Your task to perform on an android device: find snoozed emails in the gmail app Image 0: 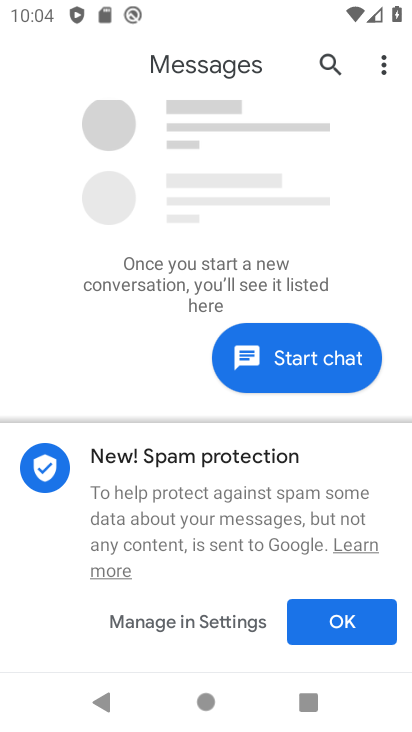
Step 0: click (71, 393)
Your task to perform on an android device: find snoozed emails in the gmail app Image 1: 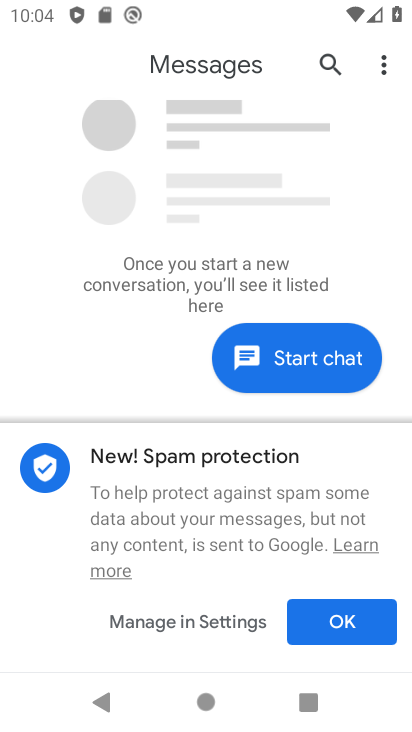
Step 1: press back button
Your task to perform on an android device: find snoozed emails in the gmail app Image 2: 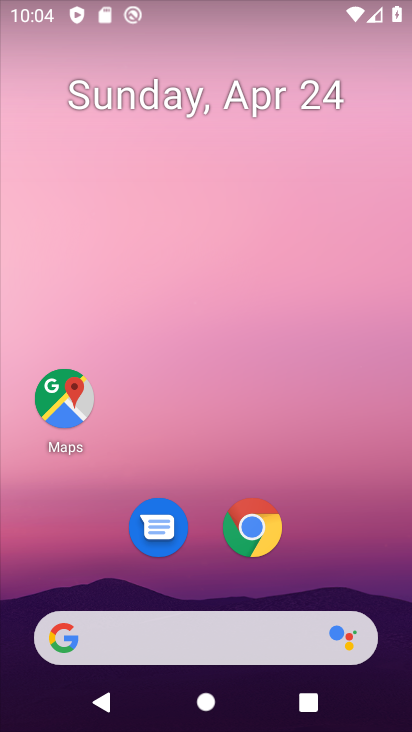
Step 2: drag from (109, 574) to (221, 83)
Your task to perform on an android device: find snoozed emails in the gmail app Image 3: 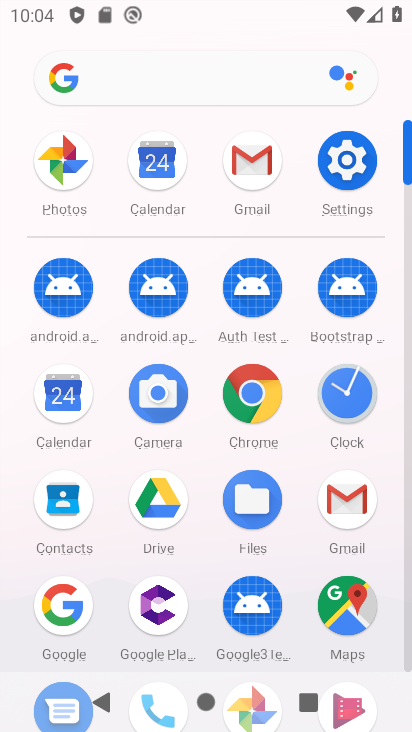
Step 3: click (254, 163)
Your task to perform on an android device: find snoozed emails in the gmail app Image 4: 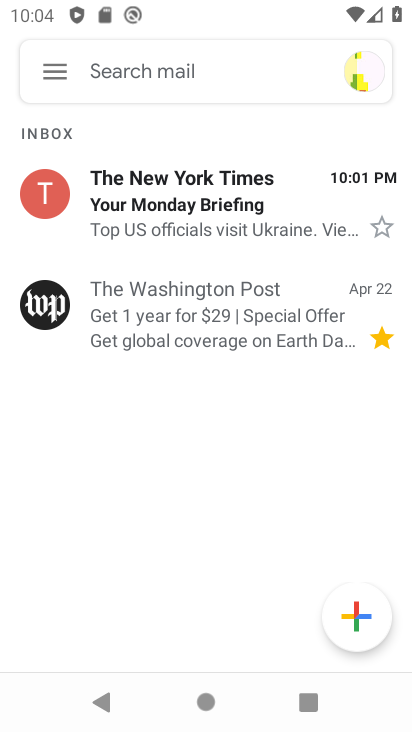
Step 4: click (57, 66)
Your task to perform on an android device: find snoozed emails in the gmail app Image 5: 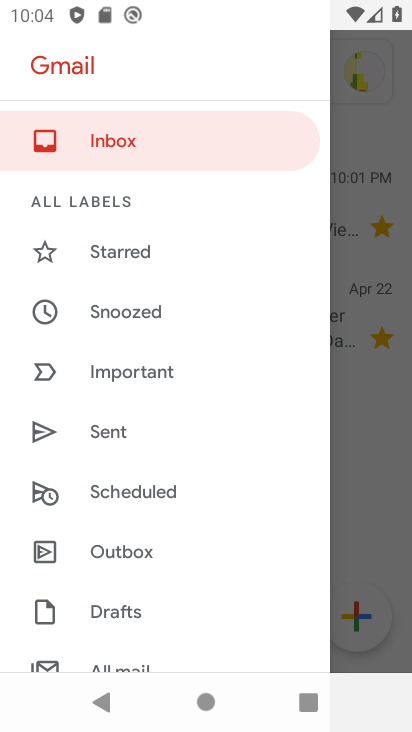
Step 5: click (113, 317)
Your task to perform on an android device: find snoozed emails in the gmail app Image 6: 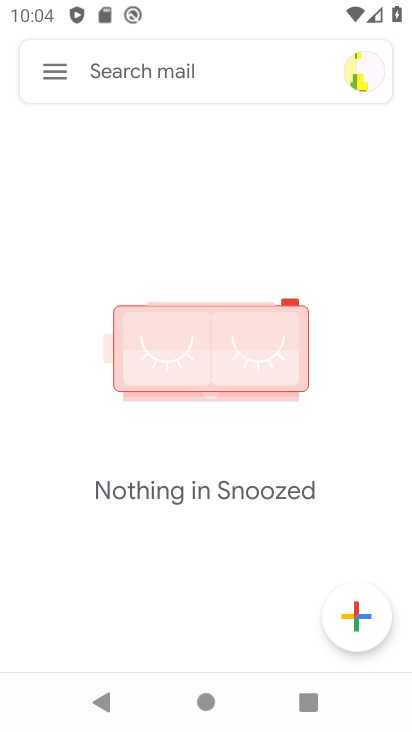
Step 6: task complete